Your task to perform on an android device: change the upload size in google photos Image 0: 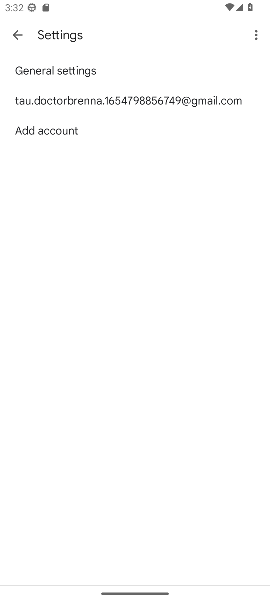
Step 0: press home button
Your task to perform on an android device: change the upload size in google photos Image 1: 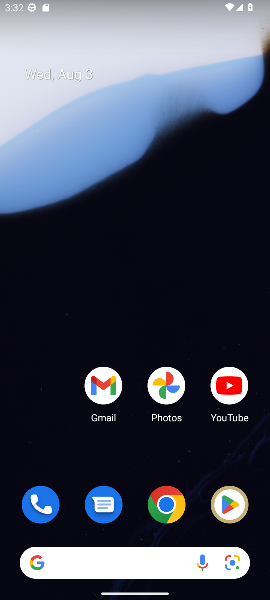
Step 1: drag from (127, 465) to (180, 140)
Your task to perform on an android device: change the upload size in google photos Image 2: 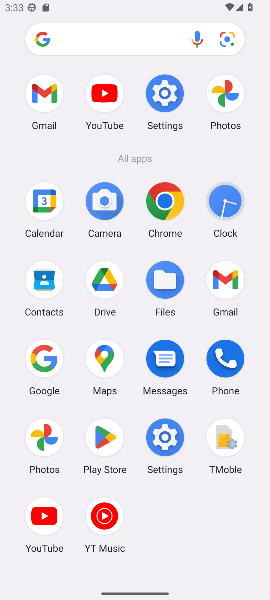
Step 2: click (220, 111)
Your task to perform on an android device: change the upload size in google photos Image 3: 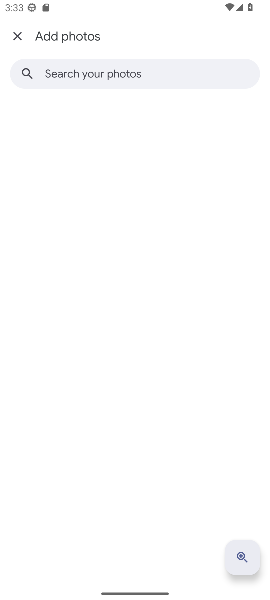
Step 3: click (7, 28)
Your task to perform on an android device: change the upload size in google photos Image 4: 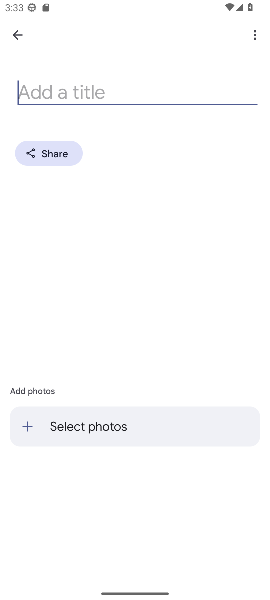
Step 4: click (22, 32)
Your task to perform on an android device: change the upload size in google photos Image 5: 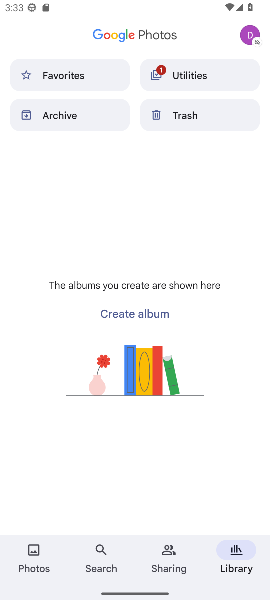
Step 5: click (31, 551)
Your task to perform on an android device: change the upload size in google photos Image 6: 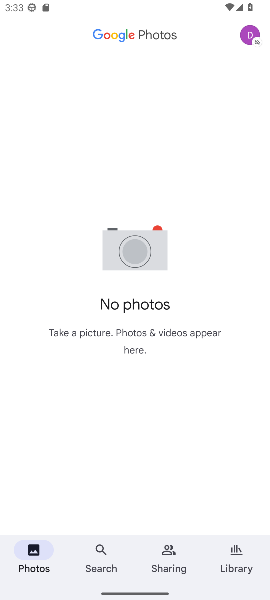
Step 6: click (251, 31)
Your task to perform on an android device: change the upload size in google photos Image 7: 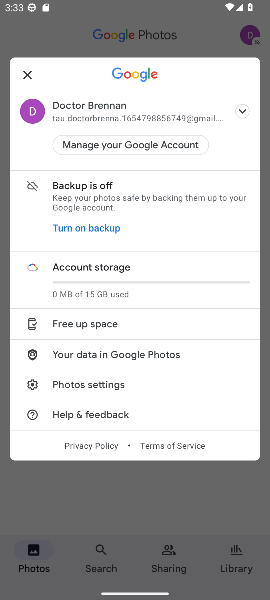
Step 7: click (114, 197)
Your task to perform on an android device: change the upload size in google photos Image 8: 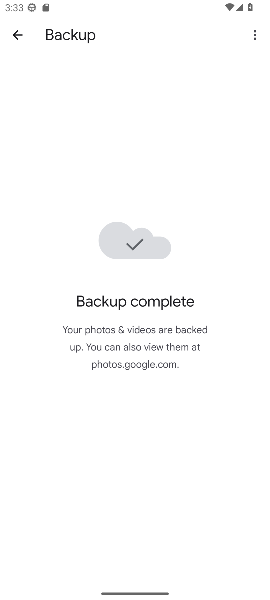
Step 8: click (264, 23)
Your task to perform on an android device: change the upload size in google photos Image 9: 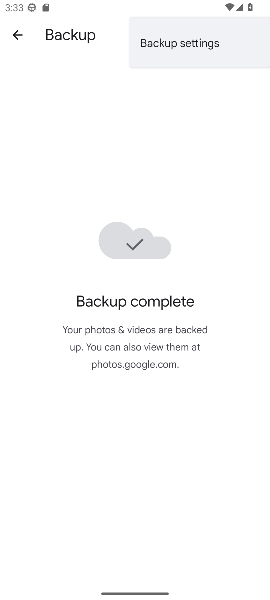
Step 9: click (200, 46)
Your task to perform on an android device: change the upload size in google photos Image 10: 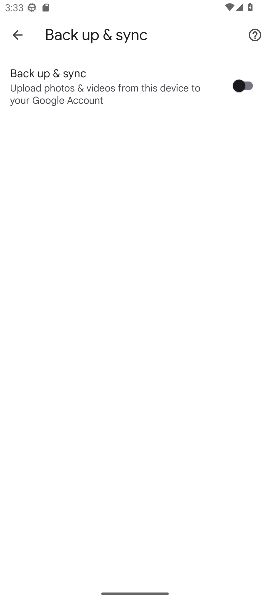
Step 10: click (256, 84)
Your task to perform on an android device: change the upload size in google photos Image 11: 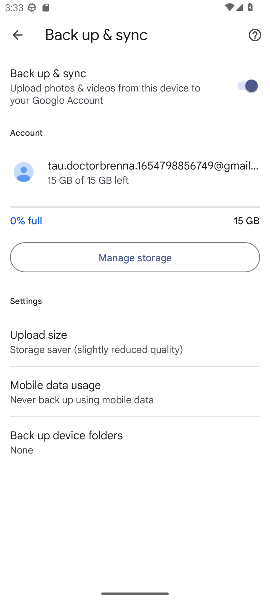
Step 11: click (84, 350)
Your task to perform on an android device: change the upload size in google photos Image 12: 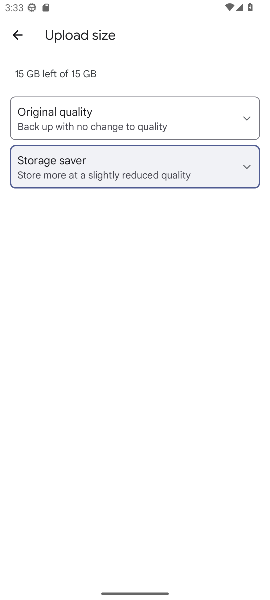
Step 12: click (146, 116)
Your task to perform on an android device: change the upload size in google photos Image 13: 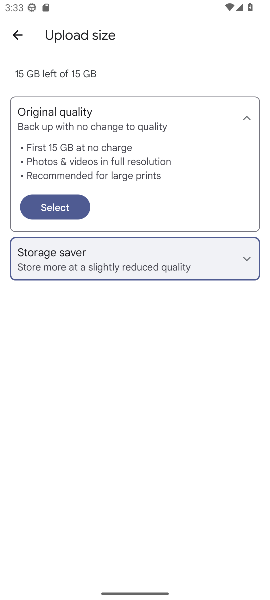
Step 13: click (65, 204)
Your task to perform on an android device: change the upload size in google photos Image 14: 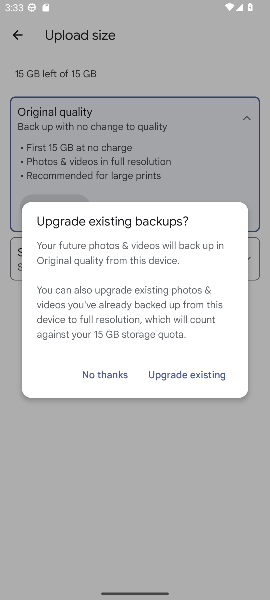
Step 14: click (112, 378)
Your task to perform on an android device: change the upload size in google photos Image 15: 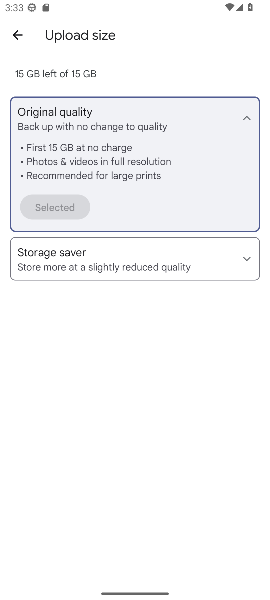
Step 15: task complete